Your task to perform on an android device: Search for the best rated TV on Target Image 0: 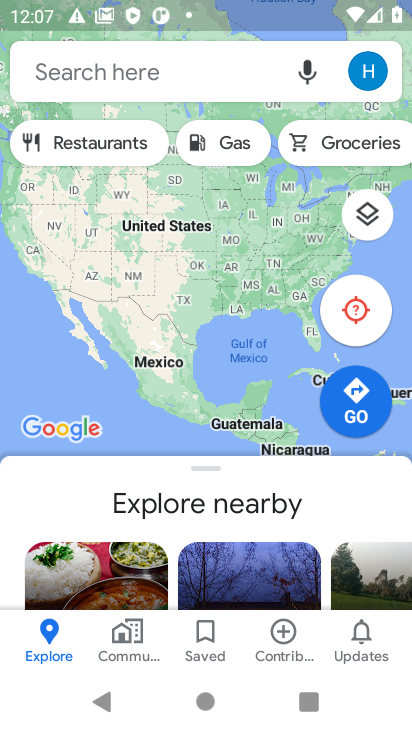
Step 0: press home button
Your task to perform on an android device: Search for the best rated TV on Target Image 1: 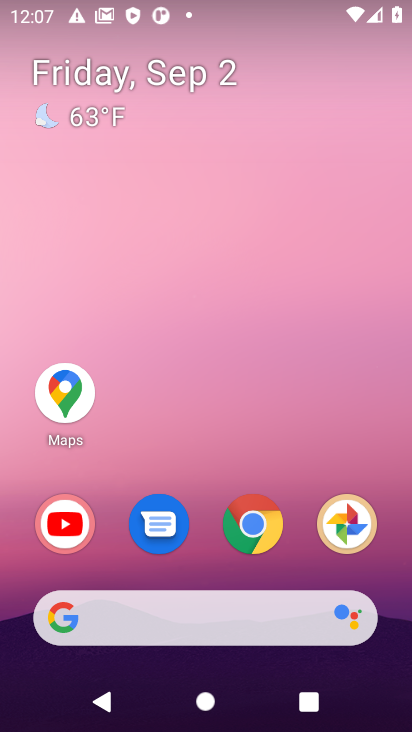
Step 1: click (256, 517)
Your task to perform on an android device: Search for the best rated TV on Target Image 2: 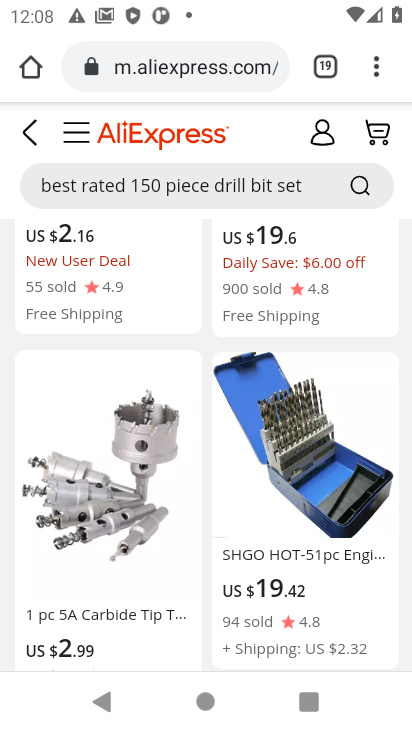
Step 2: click (322, 70)
Your task to perform on an android device: Search for the best rated TV on Target Image 3: 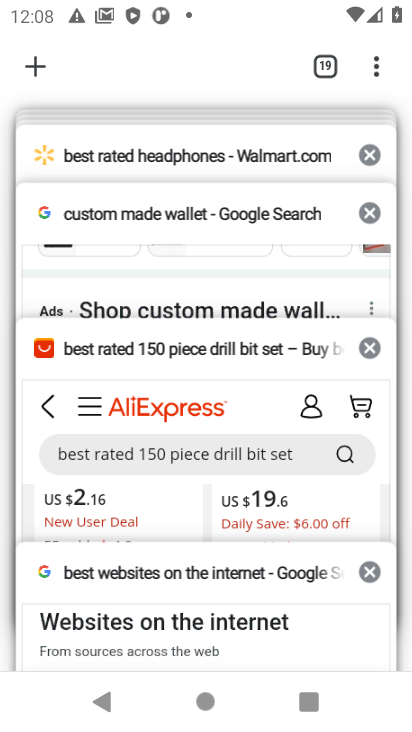
Step 3: drag from (171, 153) to (125, 548)
Your task to perform on an android device: Search for the best rated TV on Target Image 4: 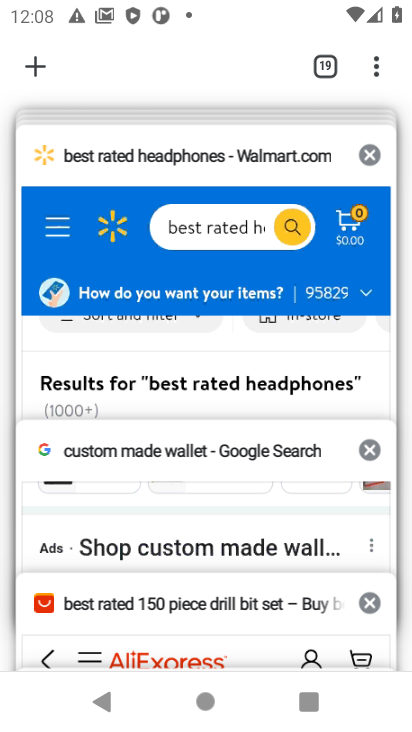
Step 4: drag from (189, 465) to (206, 696)
Your task to perform on an android device: Search for the best rated TV on Target Image 5: 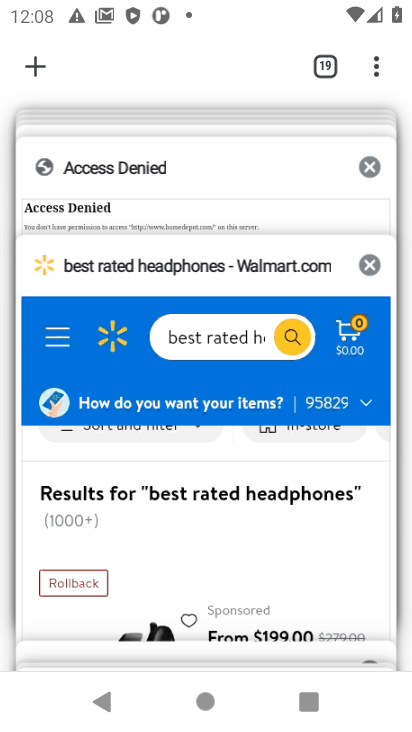
Step 5: drag from (177, 393) to (204, 690)
Your task to perform on an android device: Search for the best rated TV on Target Image 6: 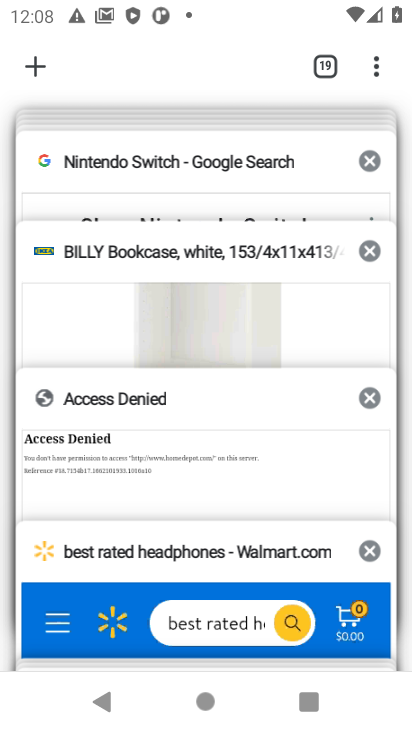
Step 6: drag from (196, 160) to (232, 563)
Your task to perform on an android device: Search for the best rated TV on Target Image 7: 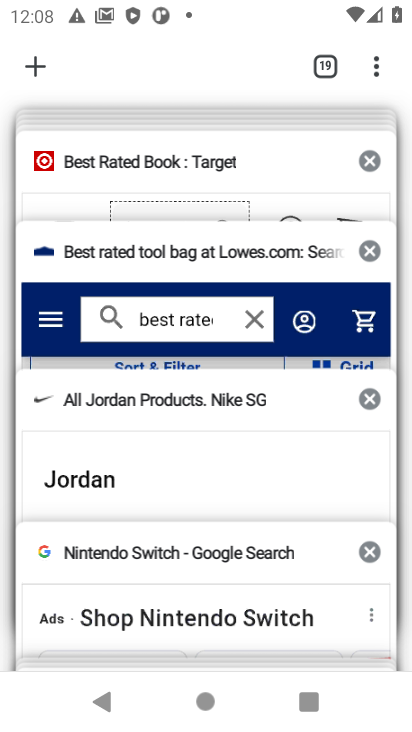
Step 7: click (238, 188)
Your task to perform on an android device: Search for the best rated TV on Target Image 8: 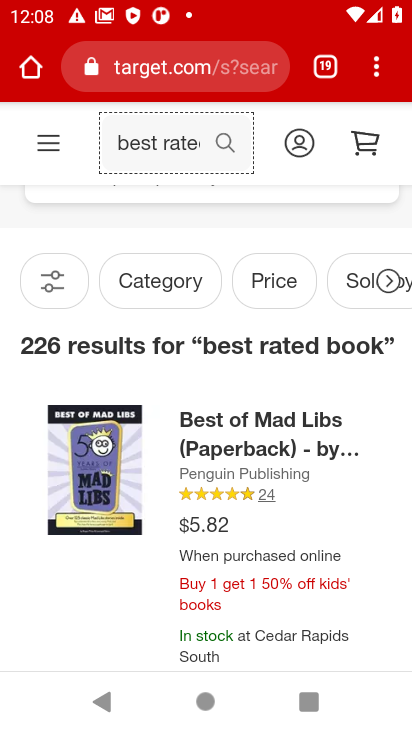
Step 8: click (190, 148)
Your task to perform on an android device: Search for the best rated TV on Target Image 9: 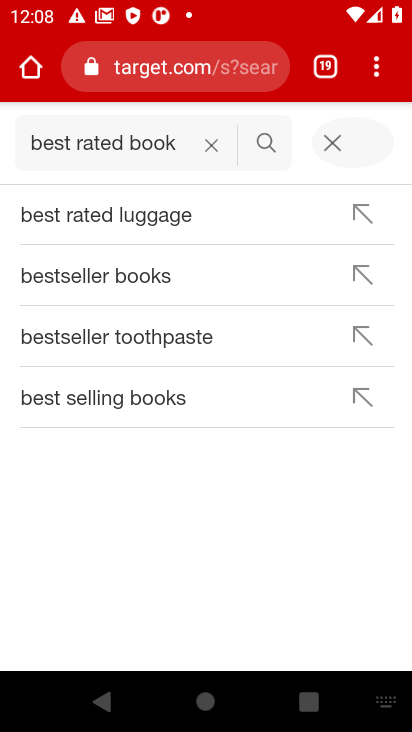
Step 9: click (210, 137)
Your task to perform on an android device: Search for the best rated TV on Target Image 10: 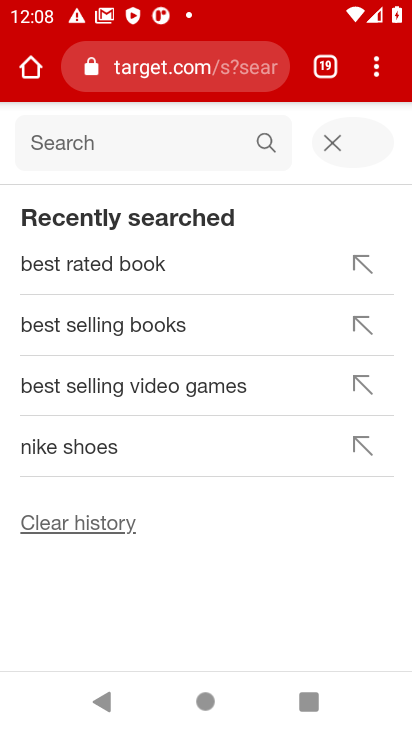
Step 10: type "best rated TV"
Your task to perform on an android device: Search for the best rated TV on Target Image 11: 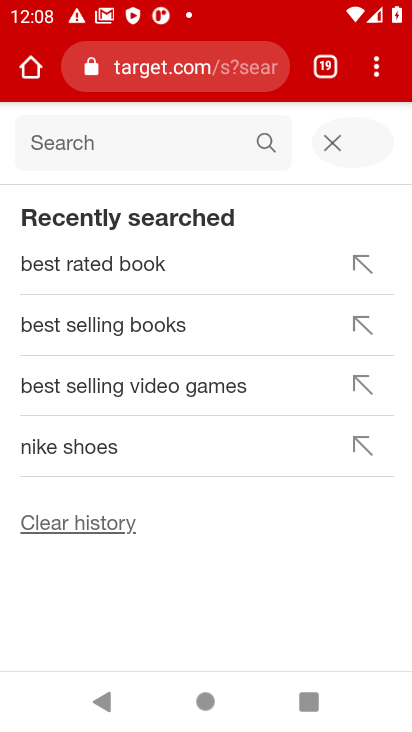
Step 11: click (125, 150)
Your task to perform on an android device: Search for the best rated TV on Target Image 12: 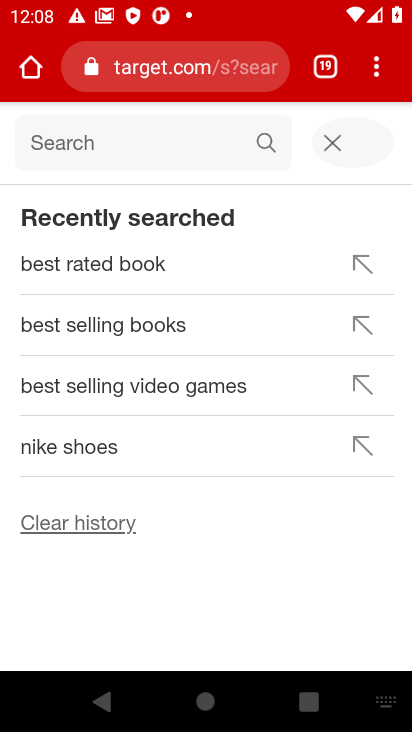
Step 12: click (101, 144)
Your task to perform on an android device: Search for the best rated TV on Target Image 13: 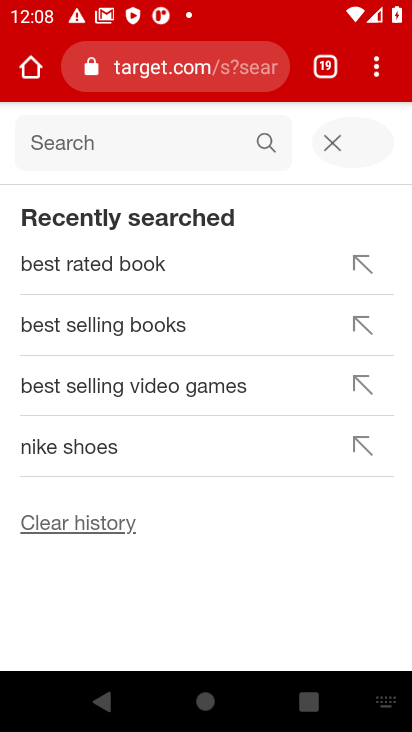
Step 13: type "best rated TV"
Your task to perform on an android device: Search for the best rated TV on Target Image 14: 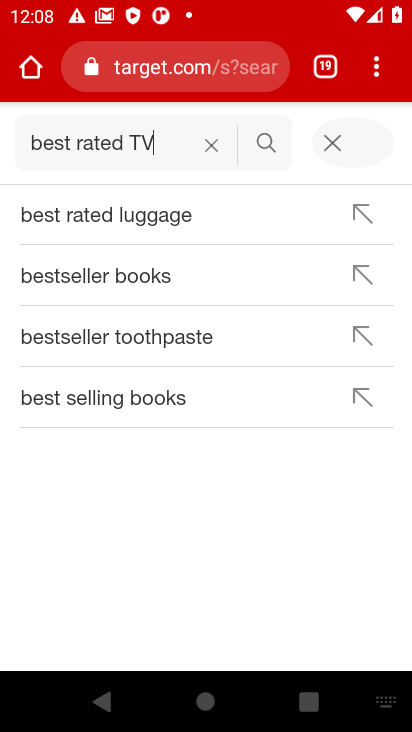
Step 14: click (266, 146)
Your task to perform on an android device: Search for the best rated TV on Target Image 15: 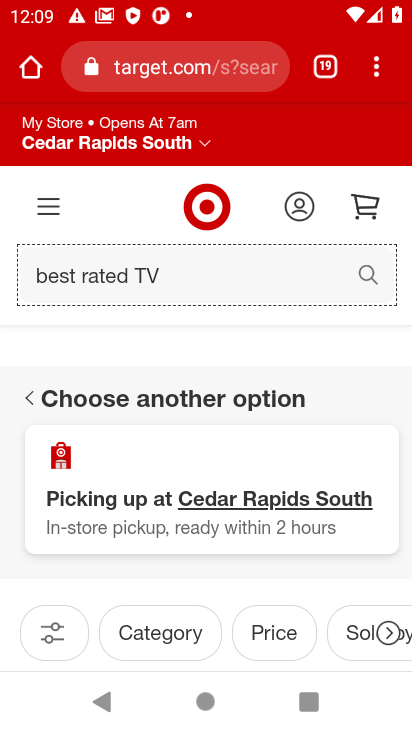
Step 15: task complete